Your task to perform on an android device: find which apps use the phone's location Image 0: 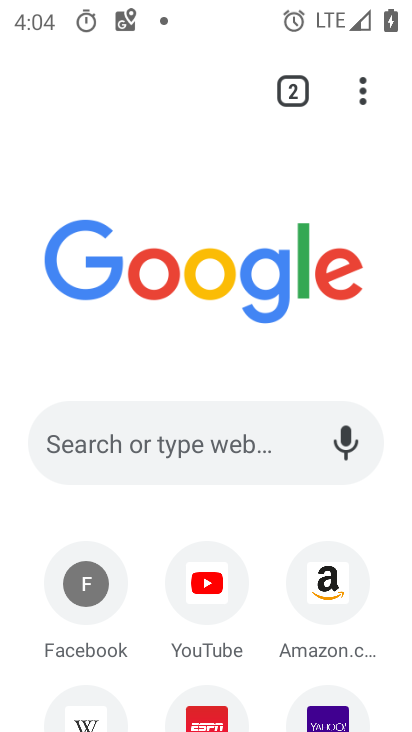
Step 0: drag from (408, 567) to (410, 696)
Your task to perform on an android device: find which apps use the phone's location Image 1: 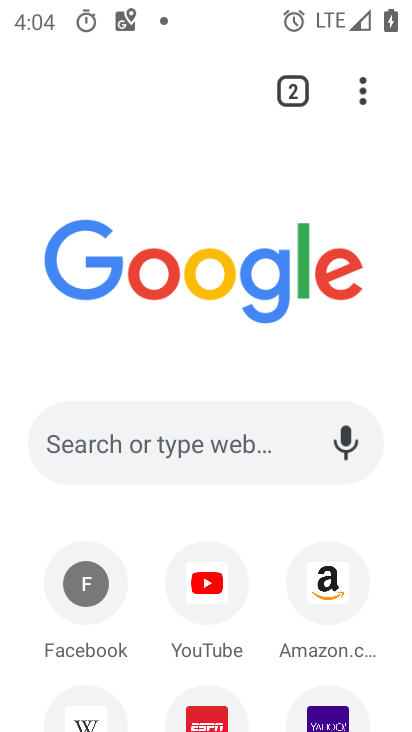
Step 1: press back button
Your task to perform on an android device: find which apps use the phone's location Image 2: 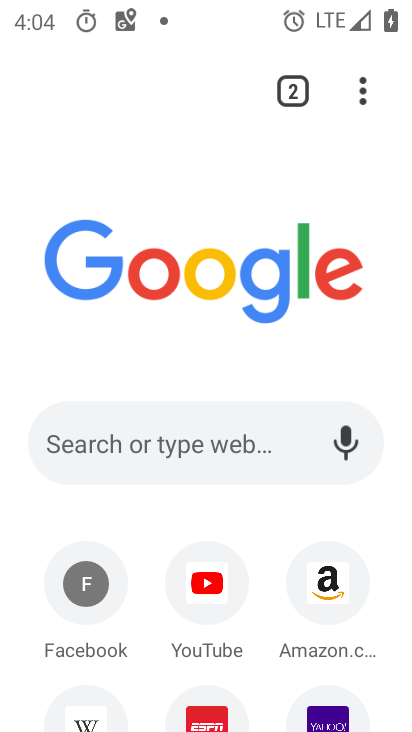
Step 2: press back button
Your task to perform on an android device: find which apps use the phone's location Image 3: 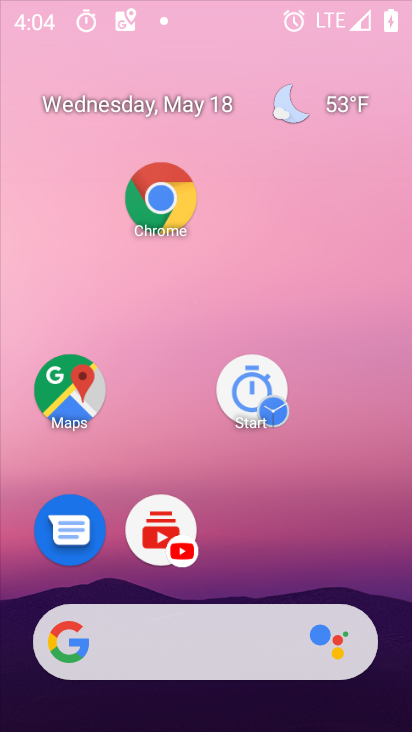
Step 3: press back button
Your task to perform on an android device: find which apps use the phone's location Image 4: 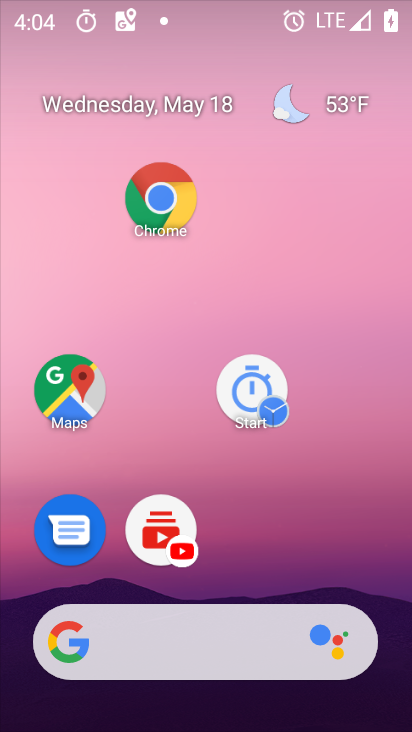
Step 4: press back button
Your task to perform on an android device: find which apps use the phone's location Image 5: 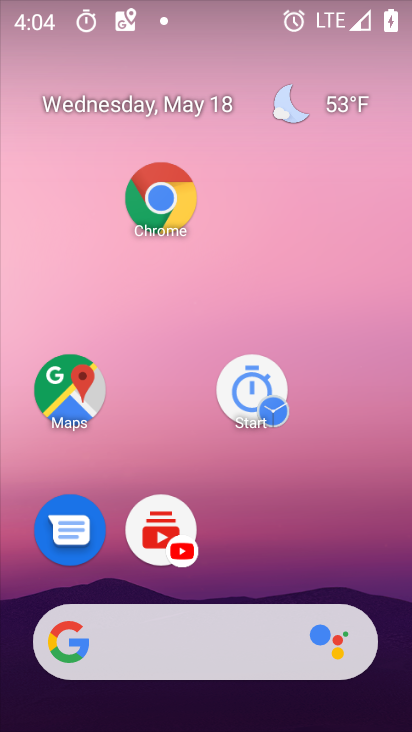
Step 5: drag from (323, 684) to (100, 81)
Your task to perform on an android device: find which apps use the phone's location Image 6: 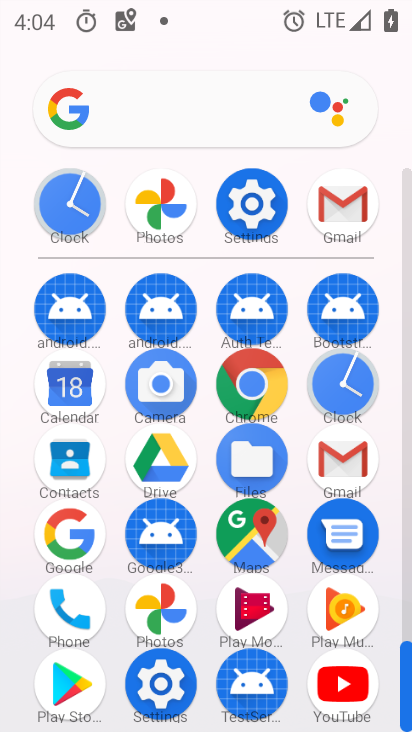
Step 6: click (232, 197)
Your task to perform on an android device: find which apps use the phone's location Image 7: 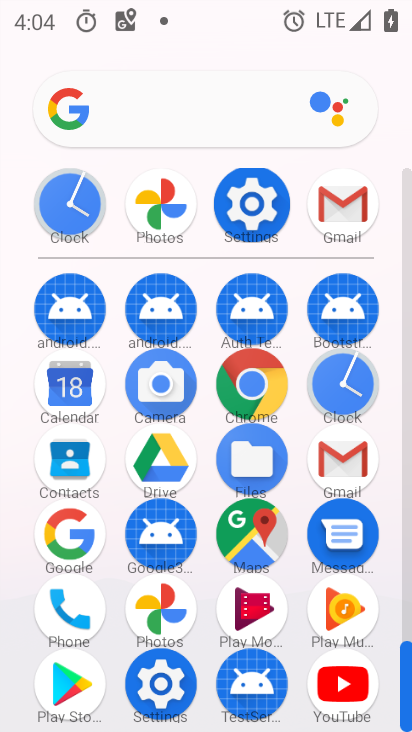
Step 7: click (233, 198)
Your task to perform on an android device: find which apps use the phone's location Image 8: 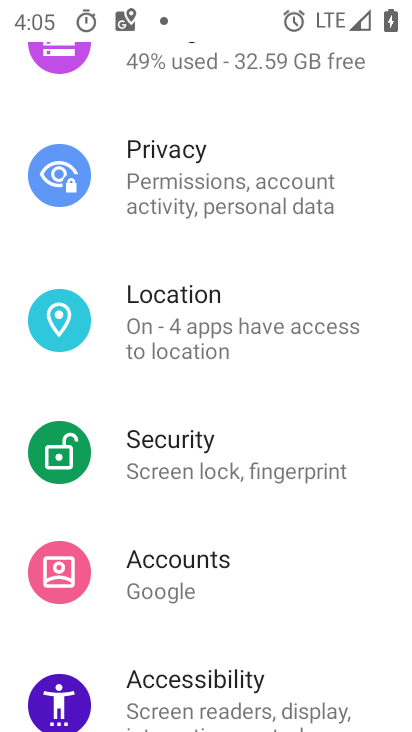
Step 8: click (198, 338)
Your task to perform on an android device: find which apps use the phone's location Image 9: 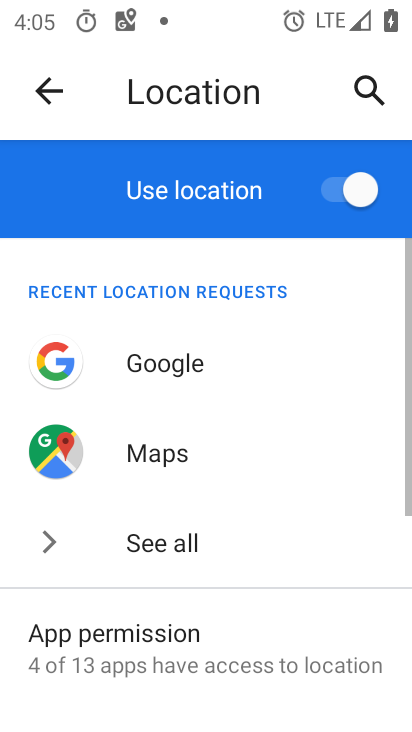
Step 9: click (124, 620)
Your task to perform on an android device: find which apps use the phone's location Image 10: 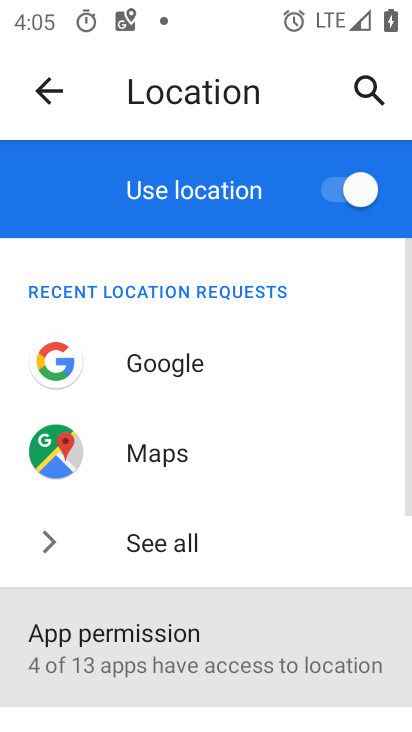
Step 10: click (120, 631)
Your task to perform on an android device: find which apps use the phone's location Image 11: 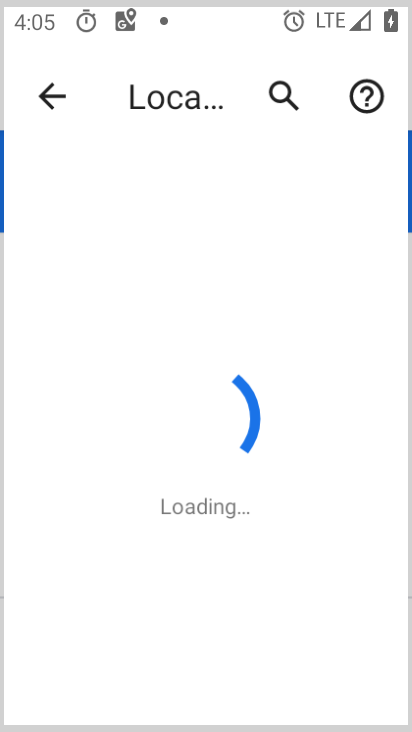
Step 11: click (128, 633)
Your task to perform on an android device: find which apps use the phone's location Image 12: 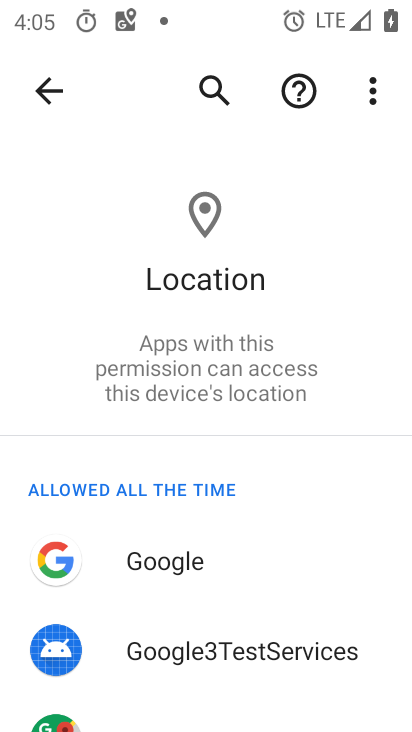
Step 12: drag from (223, 626) to (115, 211)
Your task to perform on an android device: find which apps use the phone's location Image 13: 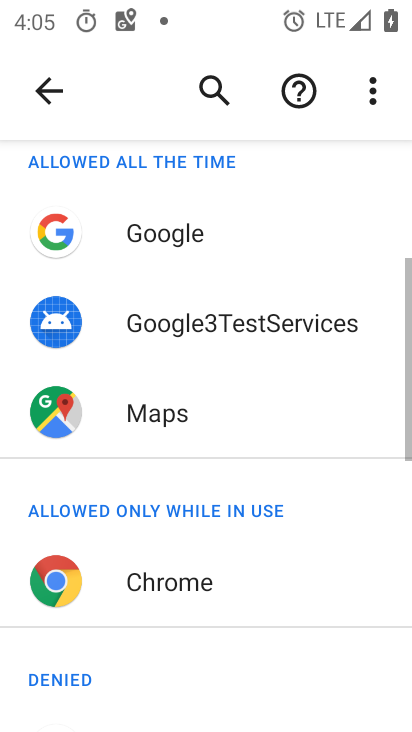
Step 13: drag from (201, 540) to (156, 195)
Your task to perform on an android device: find which apps use the phone's location Image 14: 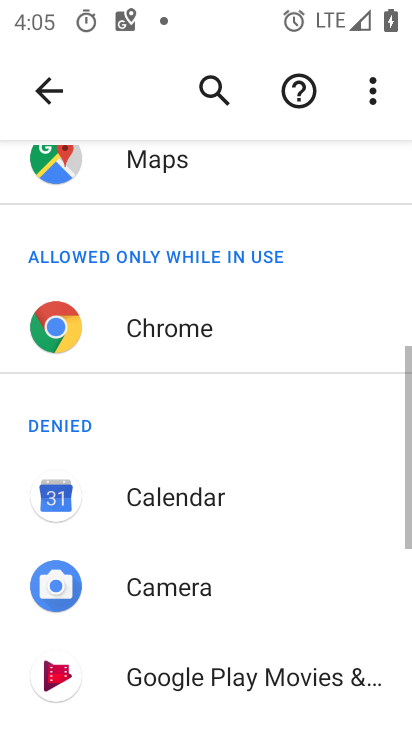
Step 14: drag from (223, 545) to (239, 245)
Your task to perform on an android device: find which apps use the phone's location Image 15: 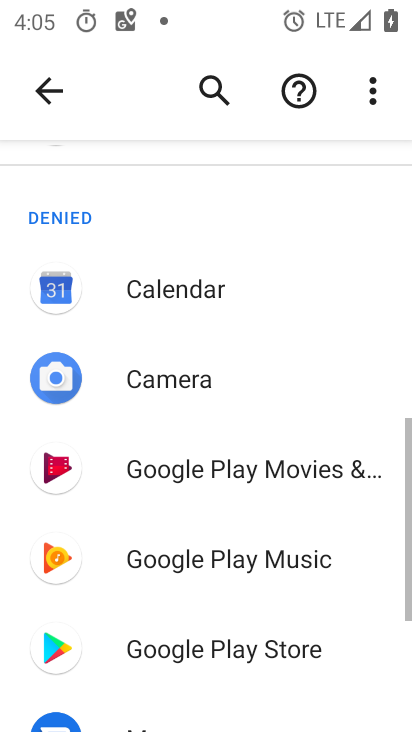
Step 15: drag from (186, 349) to (172, 255)
Your task to perform on an android device: find which apps use the phone's location Image 16: 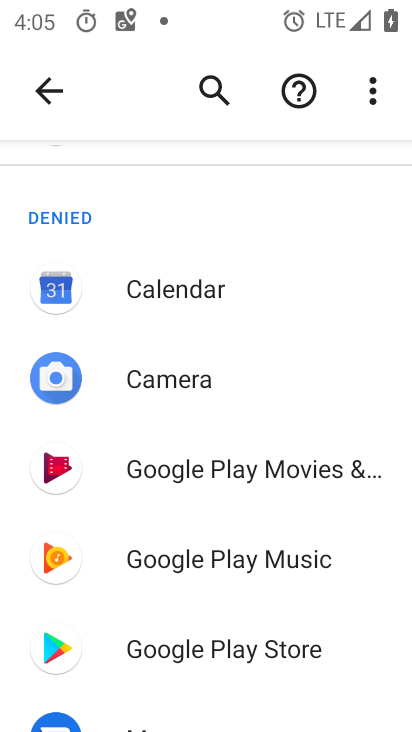
Step 16: drag from (219, 540) to (190, 258)
Your task to perform on an android device: find which apps use the phone's location Image 17: 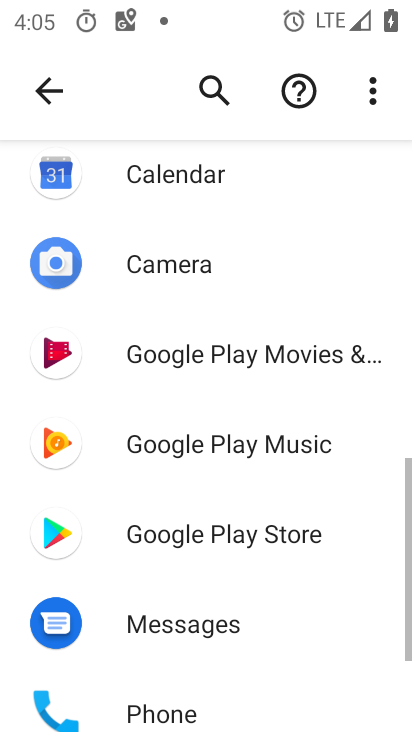
Step 17: click (244, 264)
Your task to perform on an android device: find which apps use the phone's location Image 18: 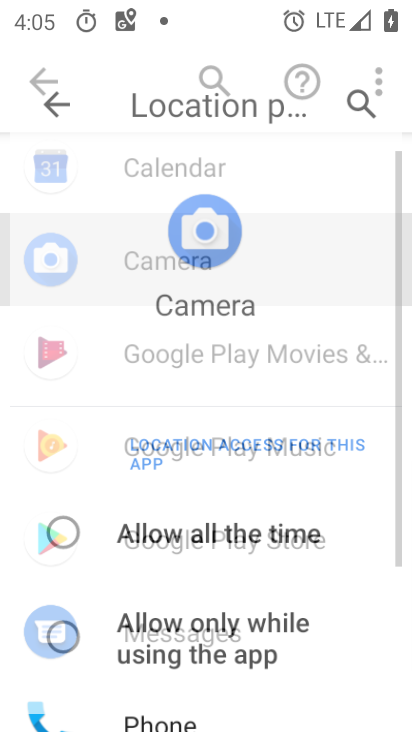
Step 18: task complete